Your task to perform on an android device: Check the weather Image 0: 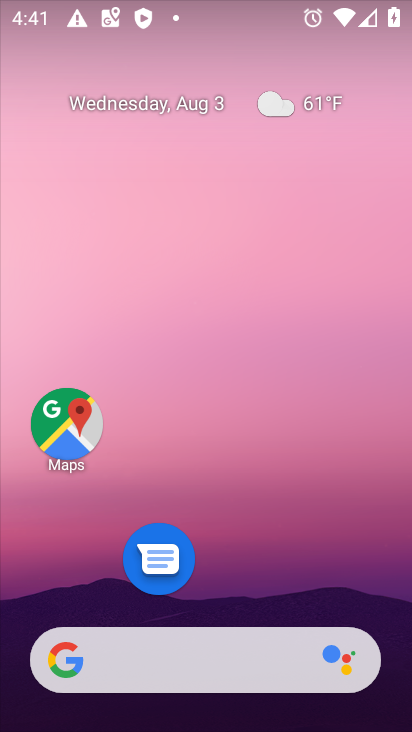
Step 0: drag from (197, 593) to (160, 160)
Your task to perform on an android device: Check the weather Image 1: 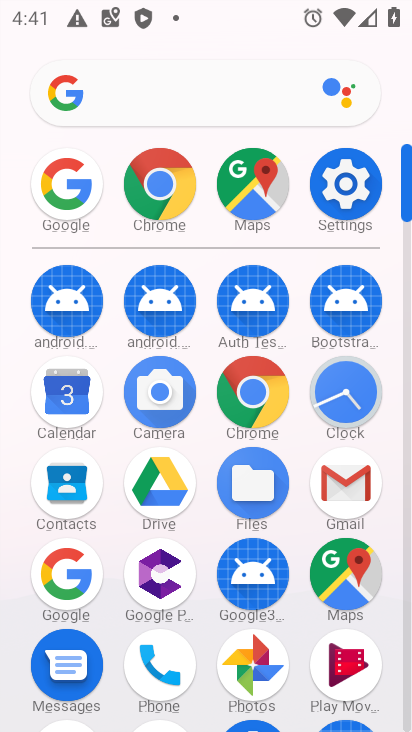
Step 1: click (74, 574)
Your task to perform on an android device: Check the weather Image 2: 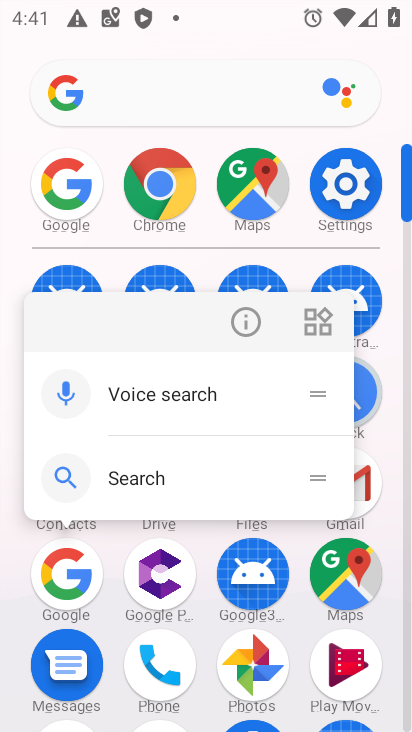
Step 2: click (74, 574)
Your task to perform on an android device: Check the weather Image 3: 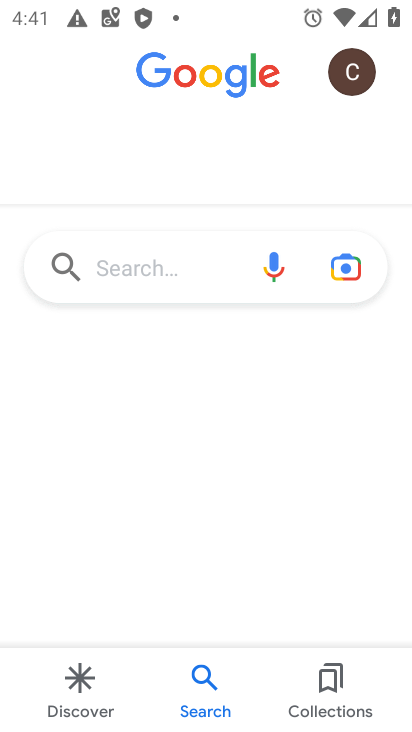
Step 3: click (164, 277)
Your task to perform on an android device: Check the weather Image 4: 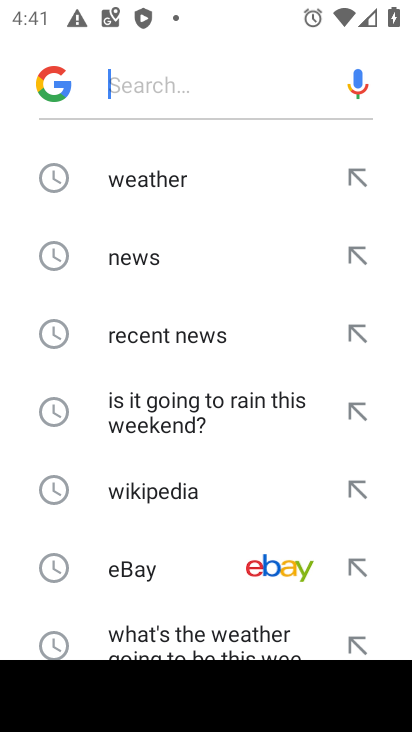
Step 4: click (147, 169)
Your task to perform on an android device: Check the weather Image 5: 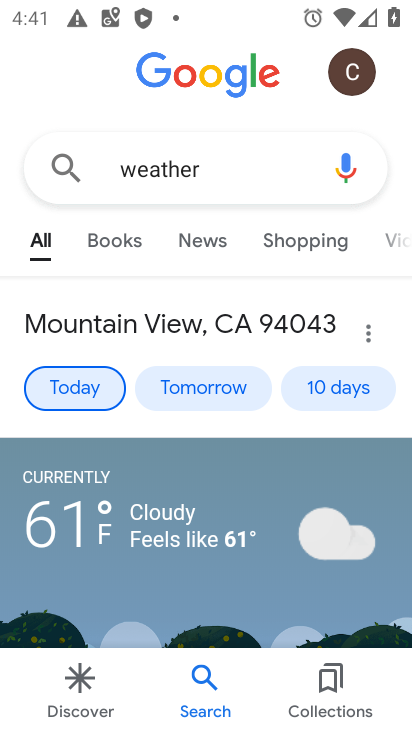
Step 5: task complete